Your task to perform on an android device: turn notification dots on Image 0: 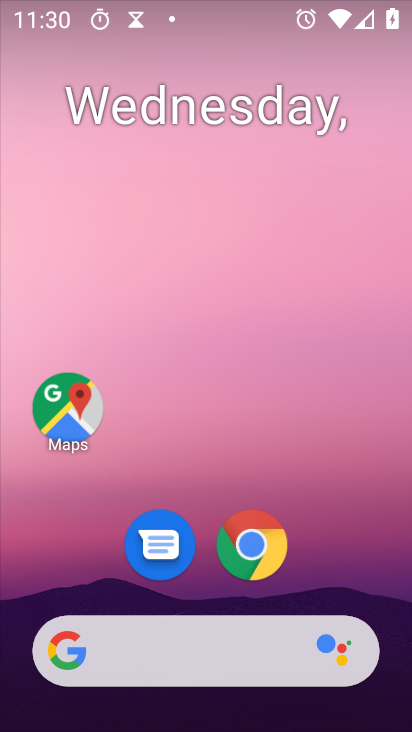
Step 0: press home button
Your task to perform on an android device: turn notification dots on Image 1: 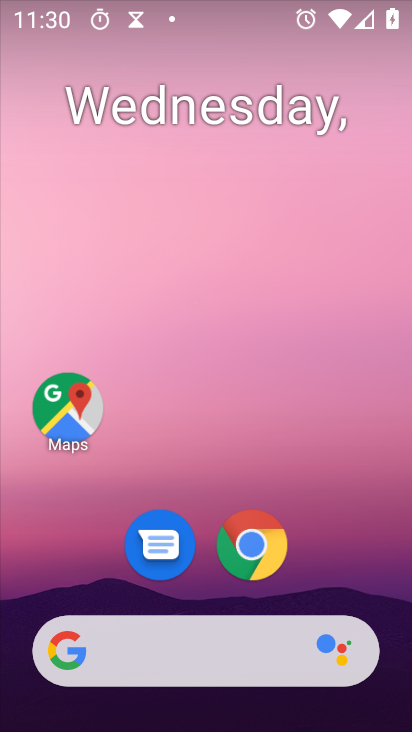
Step 1: drag from (181, 654) to (294, 92)
Your task to perform on an android device: turn notification dots on Image 2: 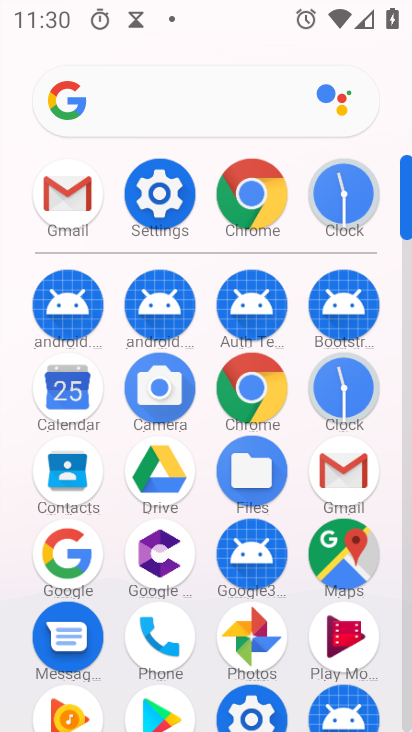
Step 2: click (156, 186)
Your task to perform on an android device: turn notification dots on Image 3: 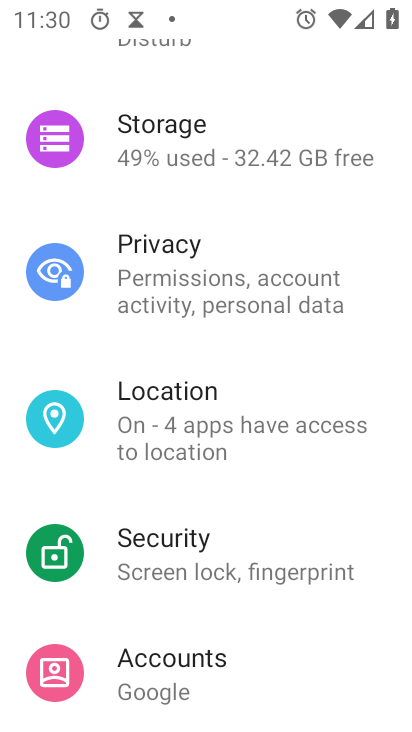
Step 3: drag from (242, 590) to (282, 318)
Your task to perform on an android device: turn notification dots on Image 4: 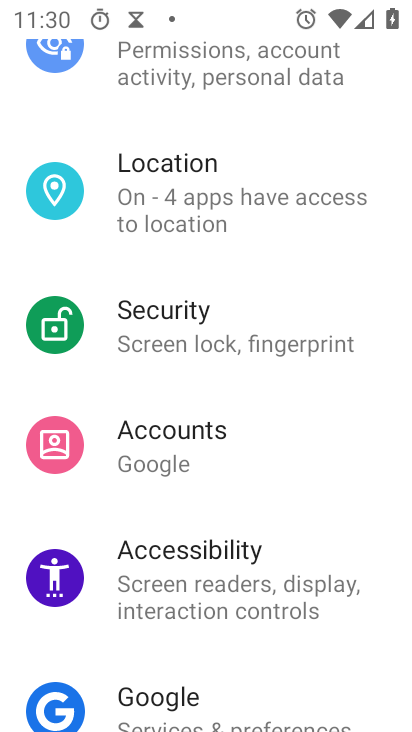
Step 4: drag from (285, 251) to (224, 727)
Your task to perform on an android device: turn notification dots on Image 5: 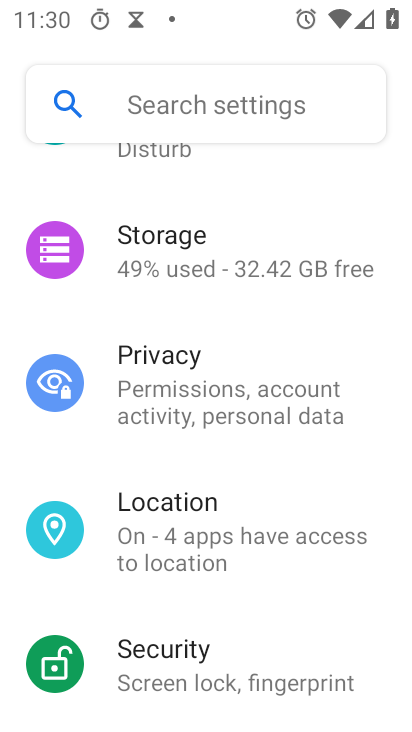
Step 5: drag from (263, 285) to (211, 615)
Your task to perform on an android device: turn notification dots on Image 6: 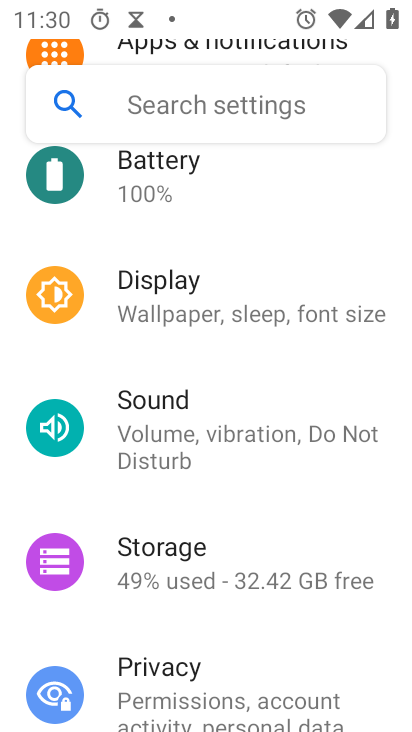
Step 6: drag from (278, 231) to (258, 577)
Your task to perform on an android device: turn notification dots on Image 7: 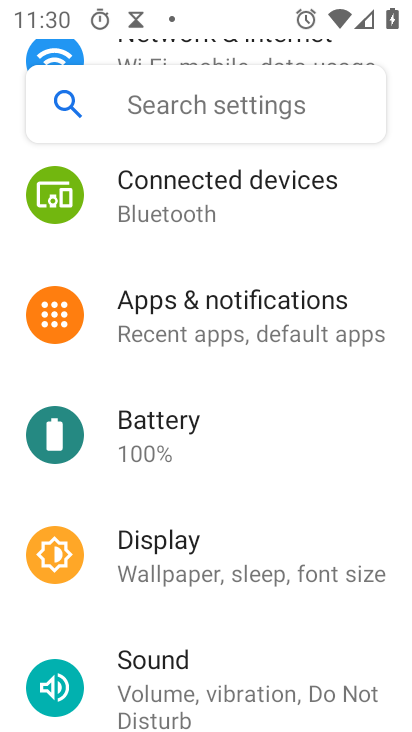
Step 7: click (286, 315)
Your task to perform on an android device: turn notification dots on Image 8: 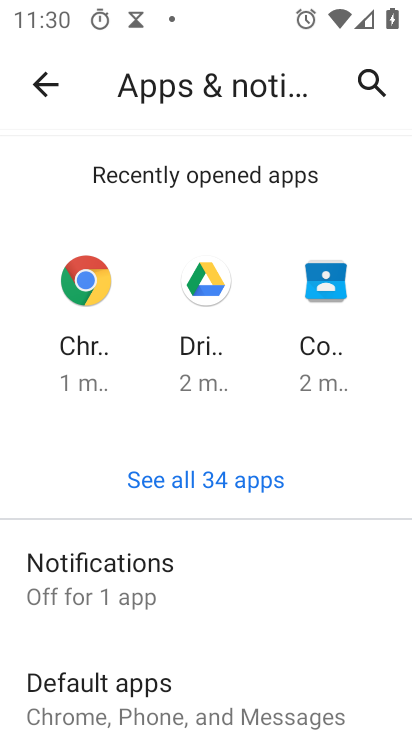
Step 8: click (133, 573)
Your task to perform on an android device: turn notification dots on Image 9: 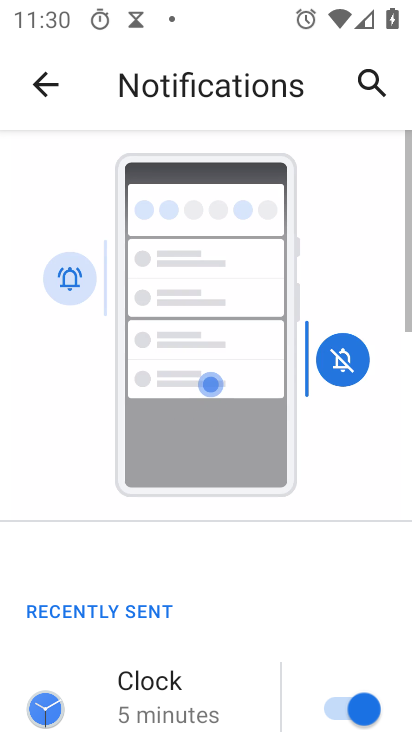
Step 9: drag from (215, 613) to (325, 61)
Your task to perform on an android device: turn notification dots on Image 10: 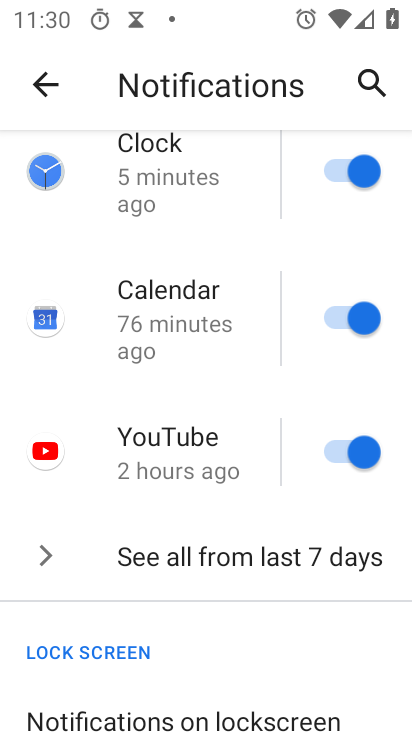
Step 10: drag from (198, 624) to (290, 285)
Your task to perform on an android device: turn notification dots on Image 11: 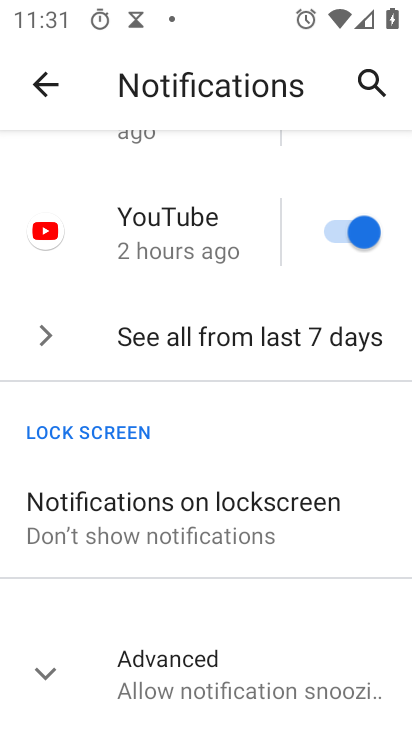
Step 11: click (169, 683)
Your task to perform on an android device: turn notification dots on Image 12: 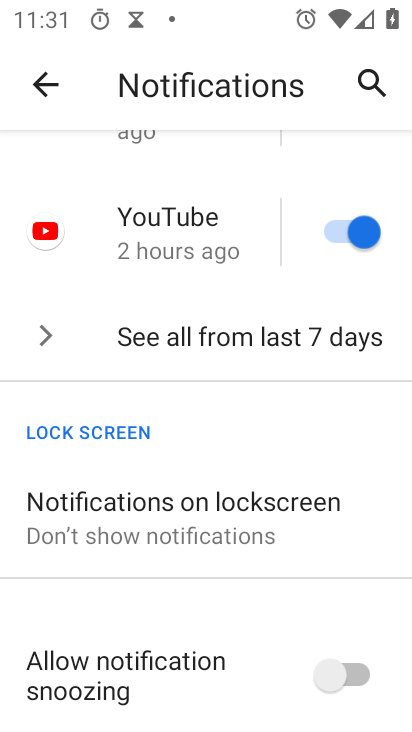
Step 12: drag from (192, 647) to (298, 285)
Your task to perform on an android device: turn notification dots on Image 13: 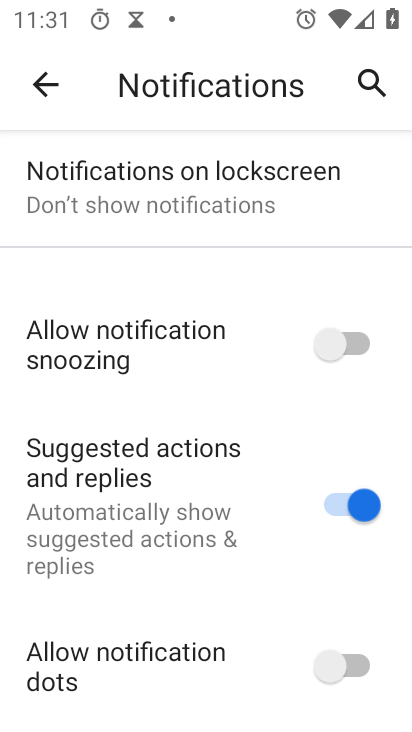
Step 13: click (344, 663)
Your task to perform on an android device: turn notification dots on Image 14: 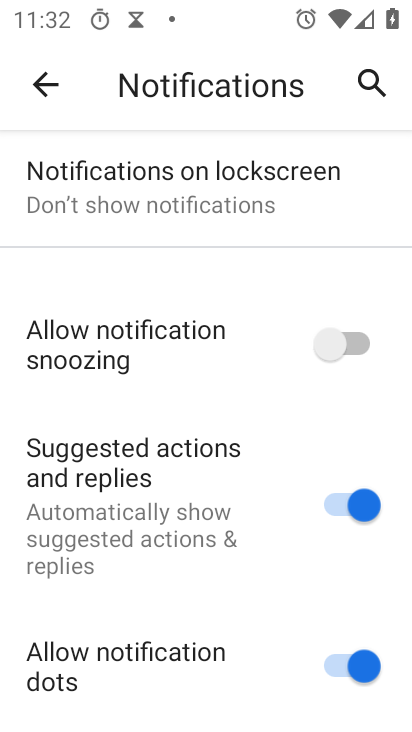
Step 14: task complete